Your task to perform on an android device: Open privacy settings Image 0: 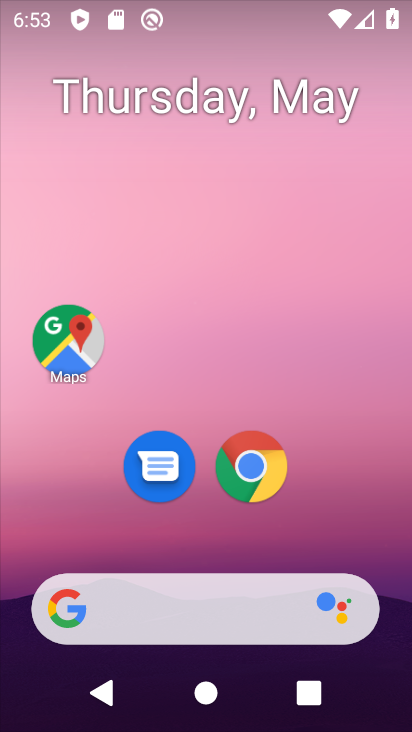
Step 0: drag from (340, 442) to (228, 52)
Your task to perform on an android device: Open privacy settings Image 1: 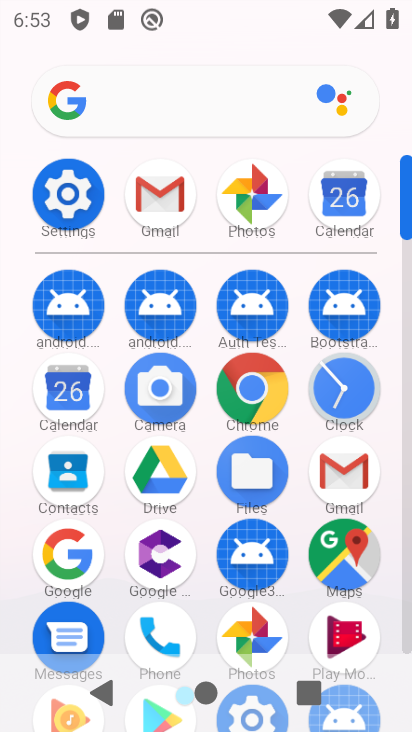
Step 1: click (68, 199)
Your task to perform on an android device: Open privacy settings Image 2: 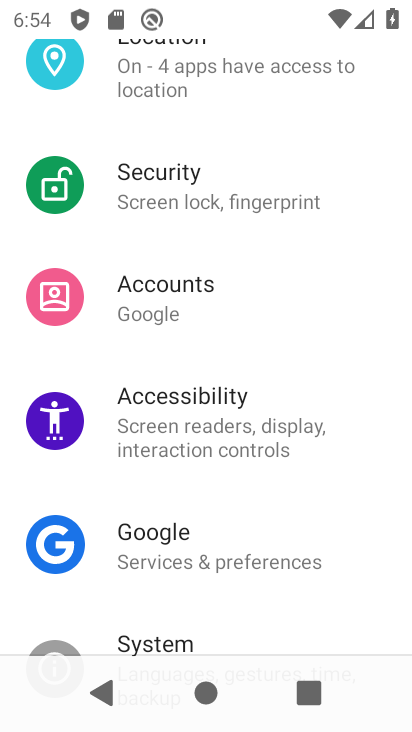
Step 2: drag from (249, 253) to (281, 482)
Your task to perform on an android device: Open privacy settings Image 3: 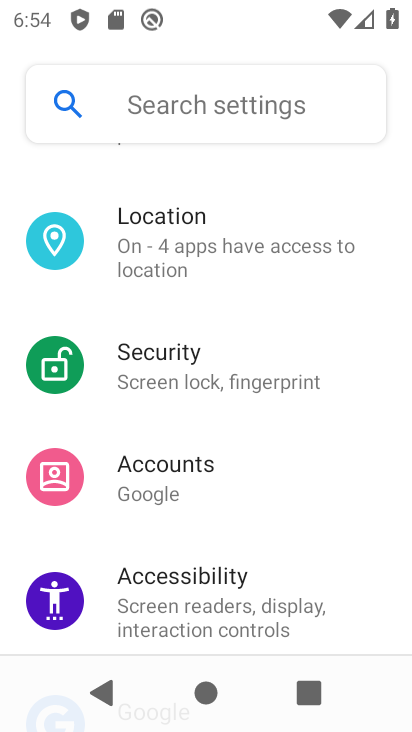
Step 3: drag from (266, 318) to (278, 497)
Your task to perform on an android device: Open privacy settings Image 4: 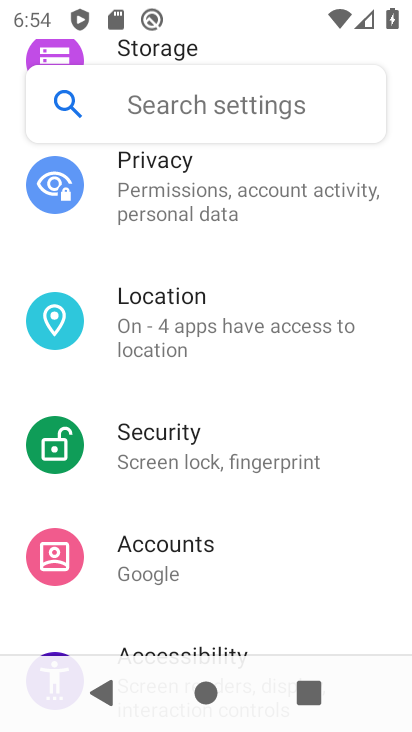
Step 4: click (157, 161)
Your task to perform on an android device: Open privacy settings Image 5: 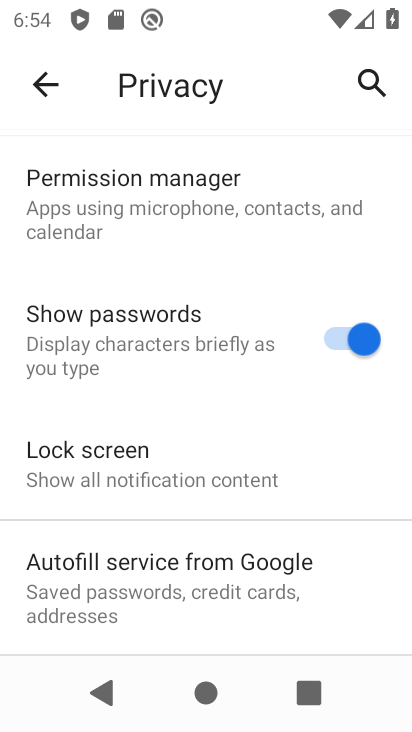
Step 5: task complete